Your task to perform on an android device: Go to eBay Image 0: 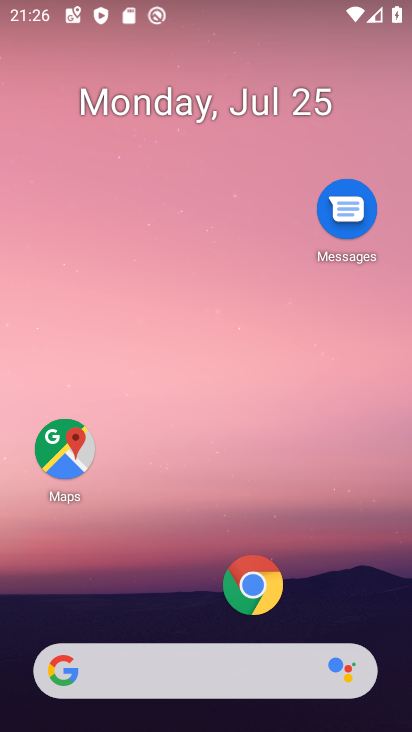
Step 0: press home button
Your task to perform on an android device: Go to eBay Image 1: 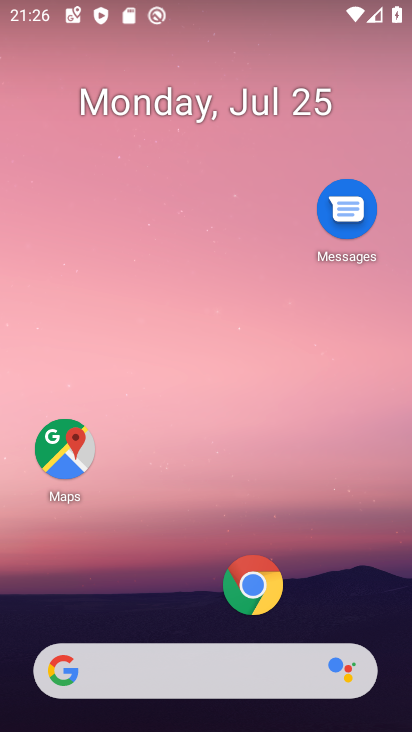
Step 1: click (261, 597)
Your task to perform on an android device: Go to eBay Image 2: 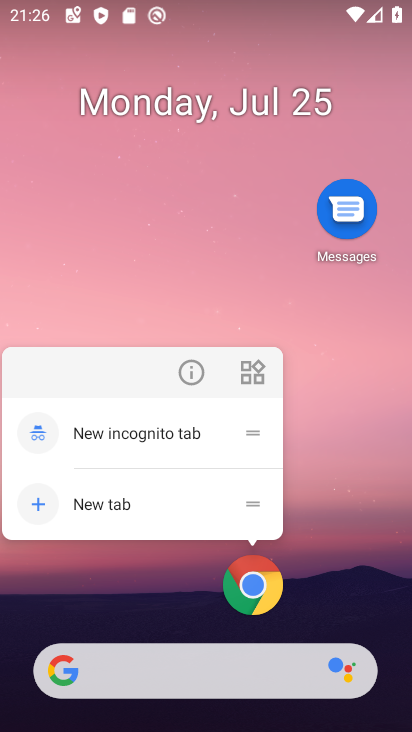
Step 2: click (246, 584)
Your task to perform on an android device: Go to eBay Image 3: 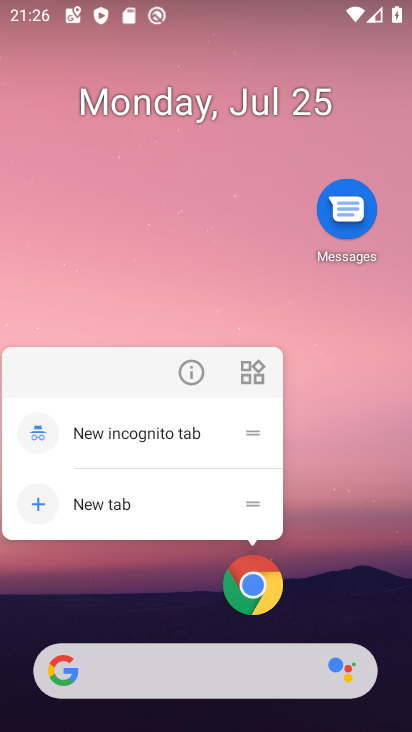
Step 3: click (246, 585)
Your task to perform on an android device: Go to eBay Image 4: 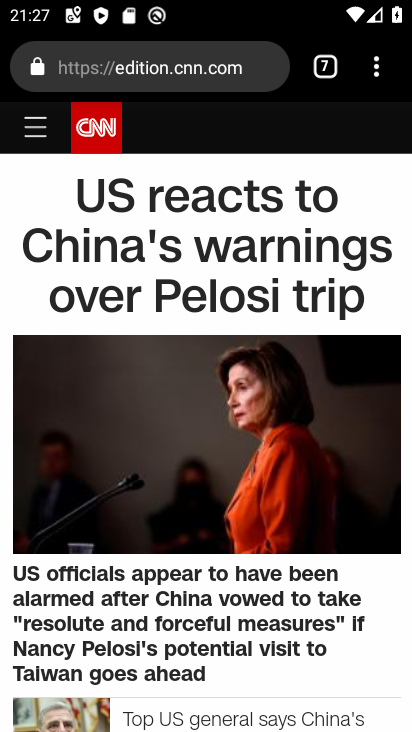
Step 4: drag from (373, 71) to (157, 140)
Your task to perform on an android device: Go to eBay Image 5: 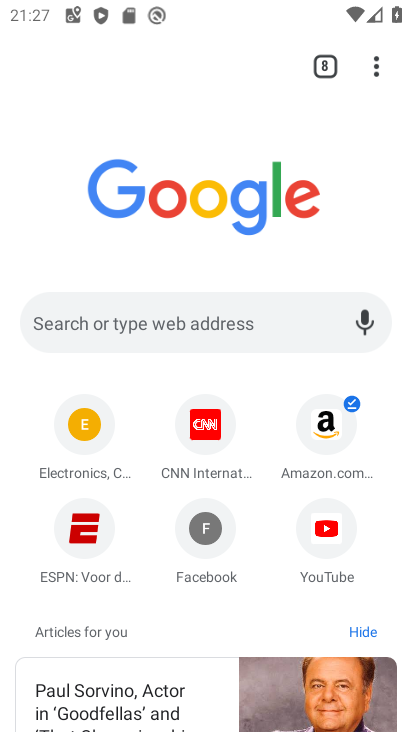
Step 5: click (94, 449)
Your task to perform on an android device: Go to eBay Image 6: 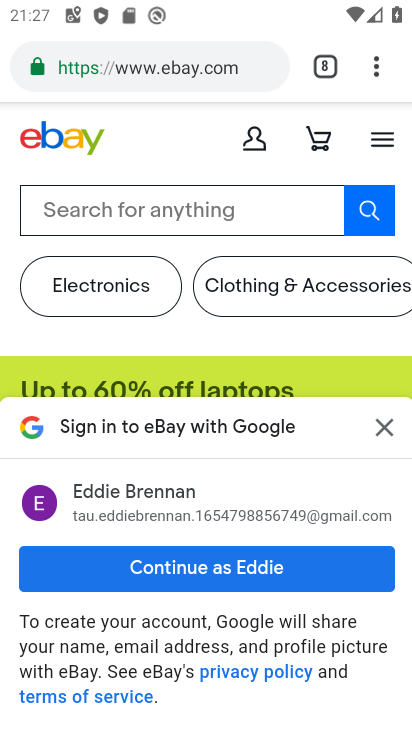
Step 6: task complete